Your task to perform on an android device: Search for "apple airpods pro" on target, select the first entry, and add it to the cart. Image 0: 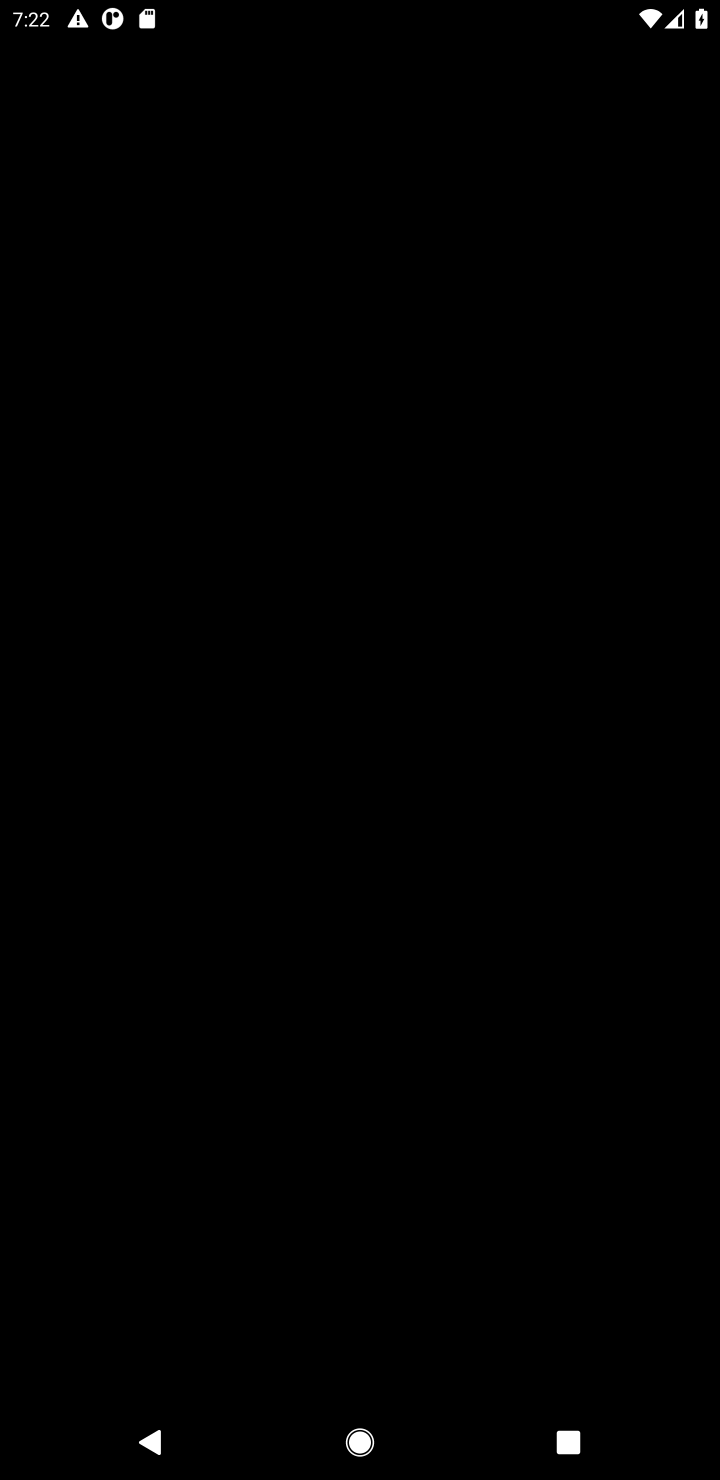
Step 0: press home button
Your task to perform on an android device: Search for "apple airpods pro" on target, select the first entry, and add it to the cart. Image 1: 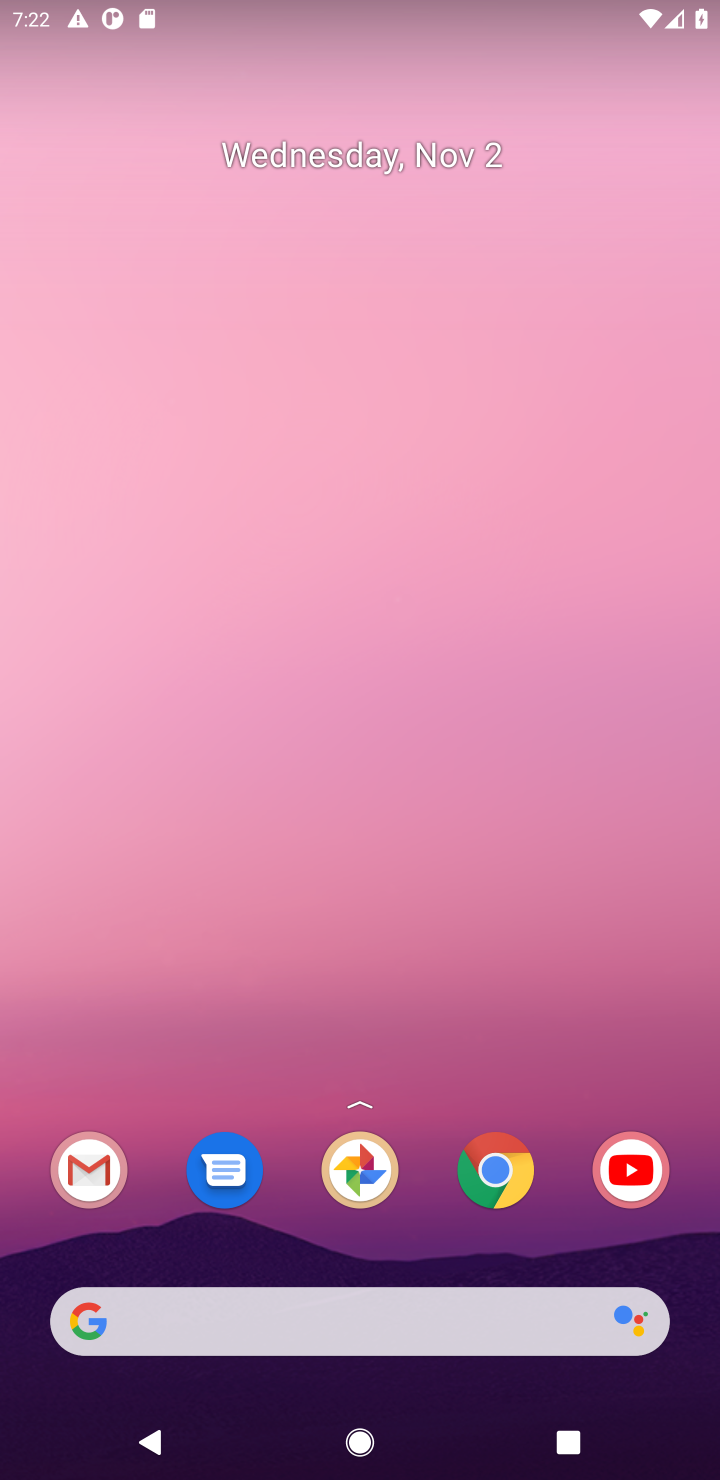
Step 1: click (500, 1185)
Your task to perform on an android device: Search for "apple airpods pro" on target, select the first entry, and add it to the cart. Image 2: 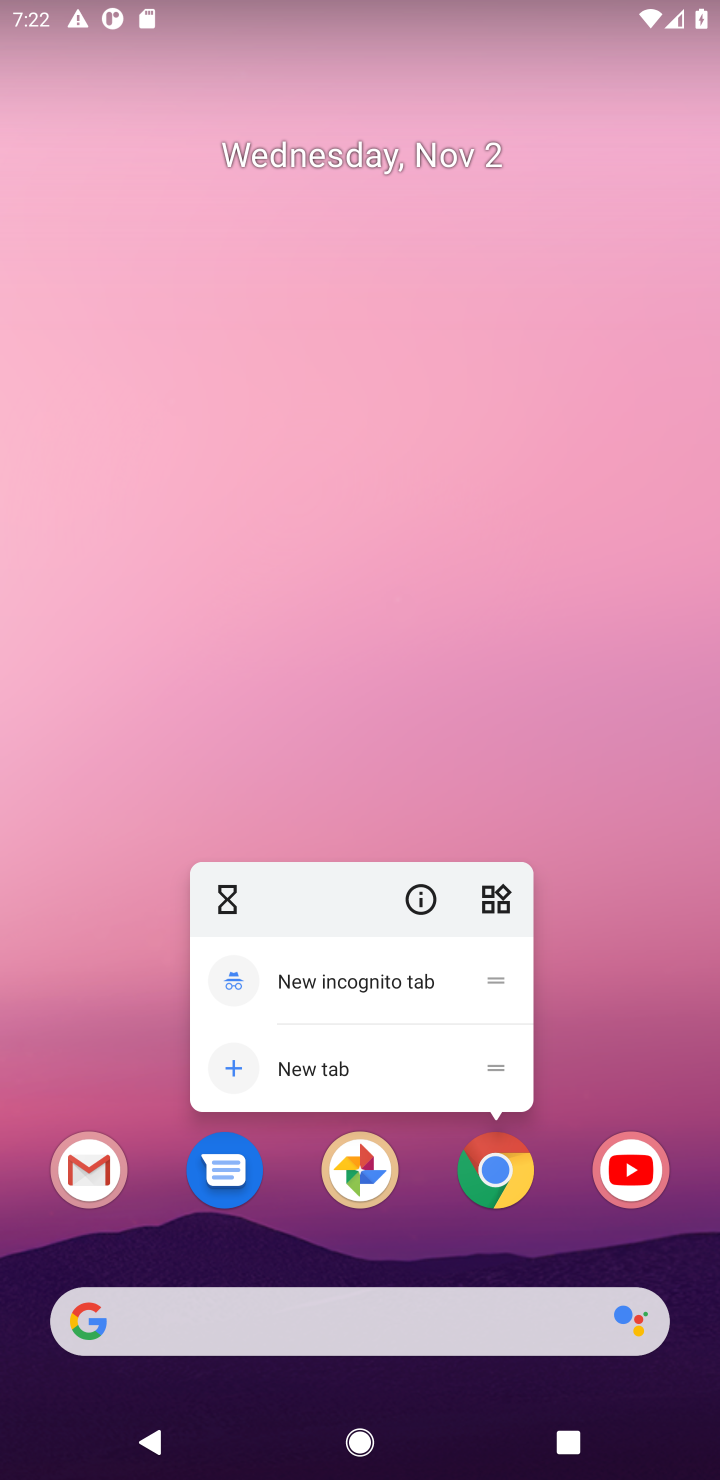
Step 2: click (507, 1198)
Your task to perform on an android device: Search for "apple airpods pro" on target, select the first entry, and add it to the cart. Image 3: 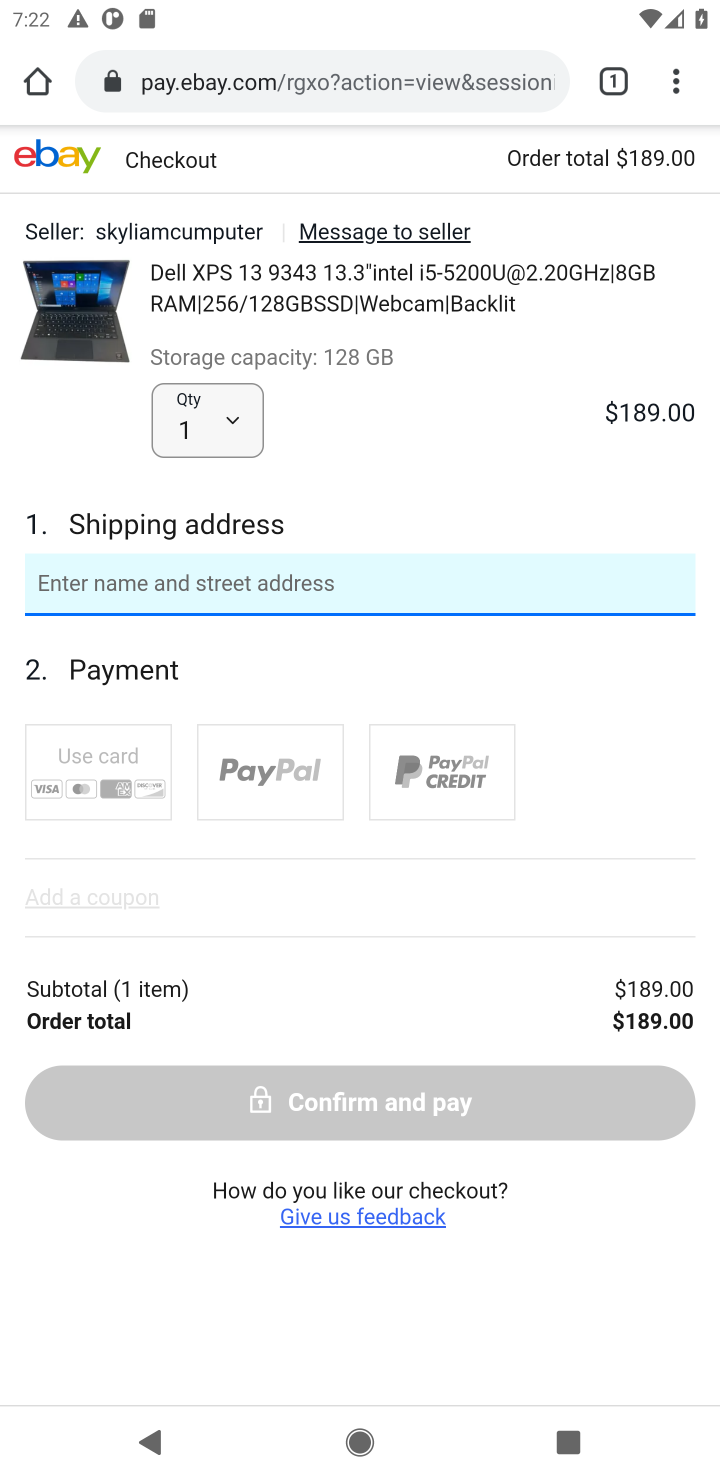
Step 3: click (197, 88)
Your task to perform on an android device: Search for "apple airpods pro" on target, select the first entry, and add it to the cart. Image 4: 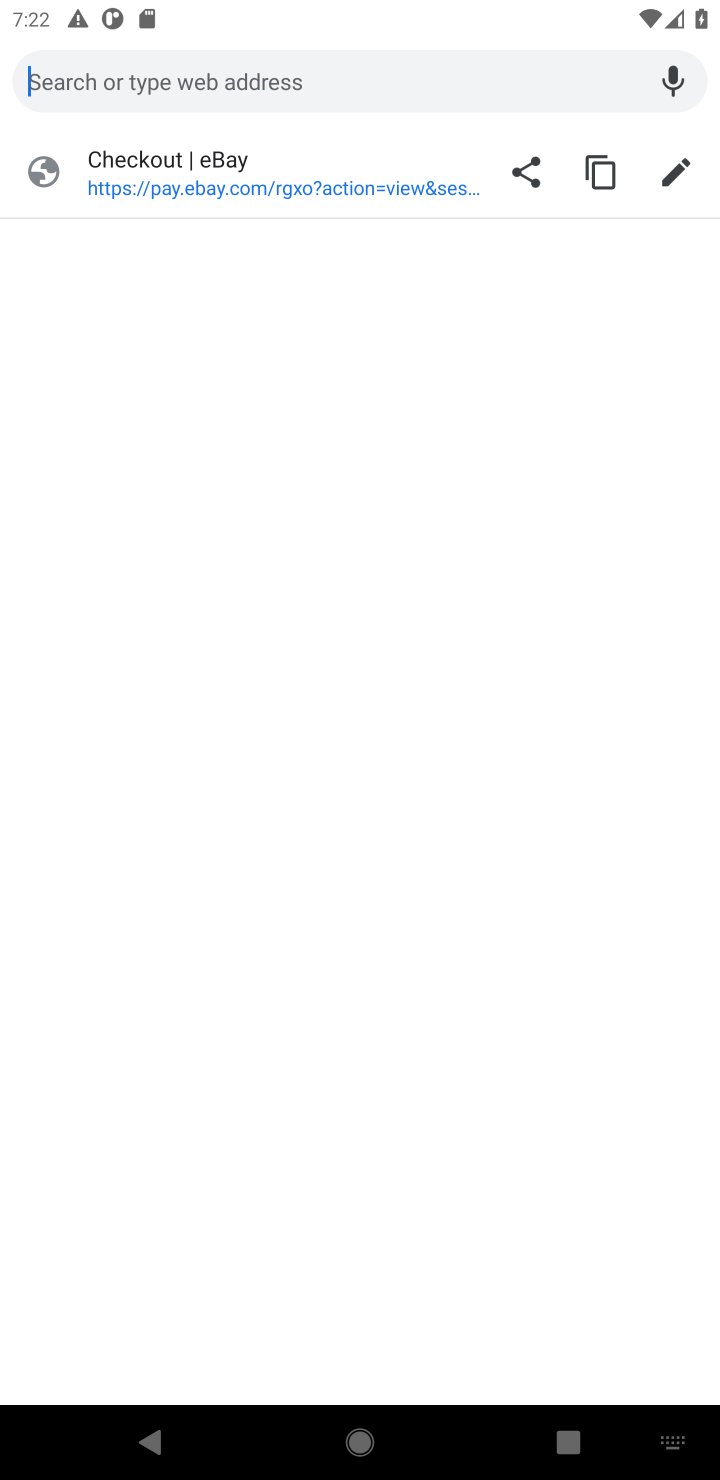
Step 4: type "target"
Your task to perform on an android device: Search for "apple airpods pro" on target, select the first entry, and add it to the cart. Image 5: 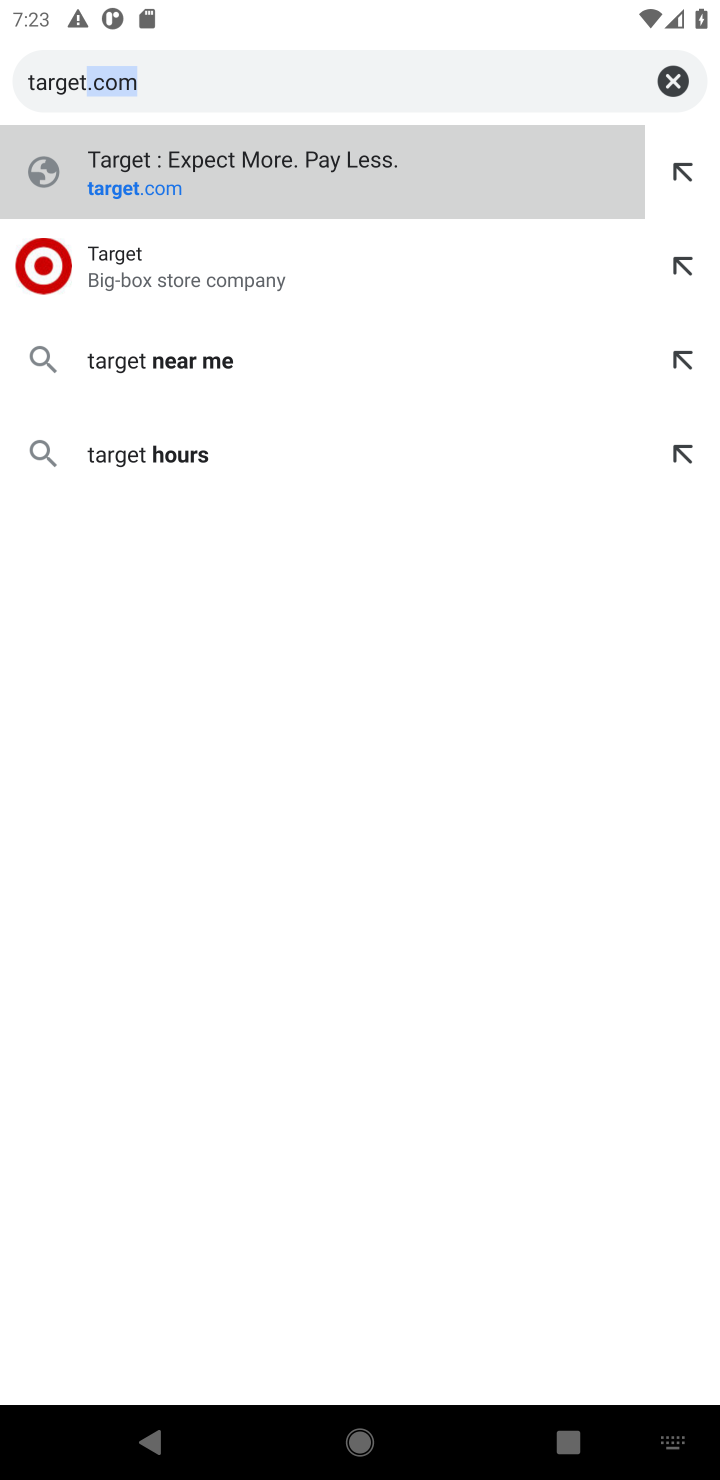
Step 5: type ""
Your task to perform on an android device: Search for "apple airpods pro" on target, select the first entry, and add it to the cart. Image 6: 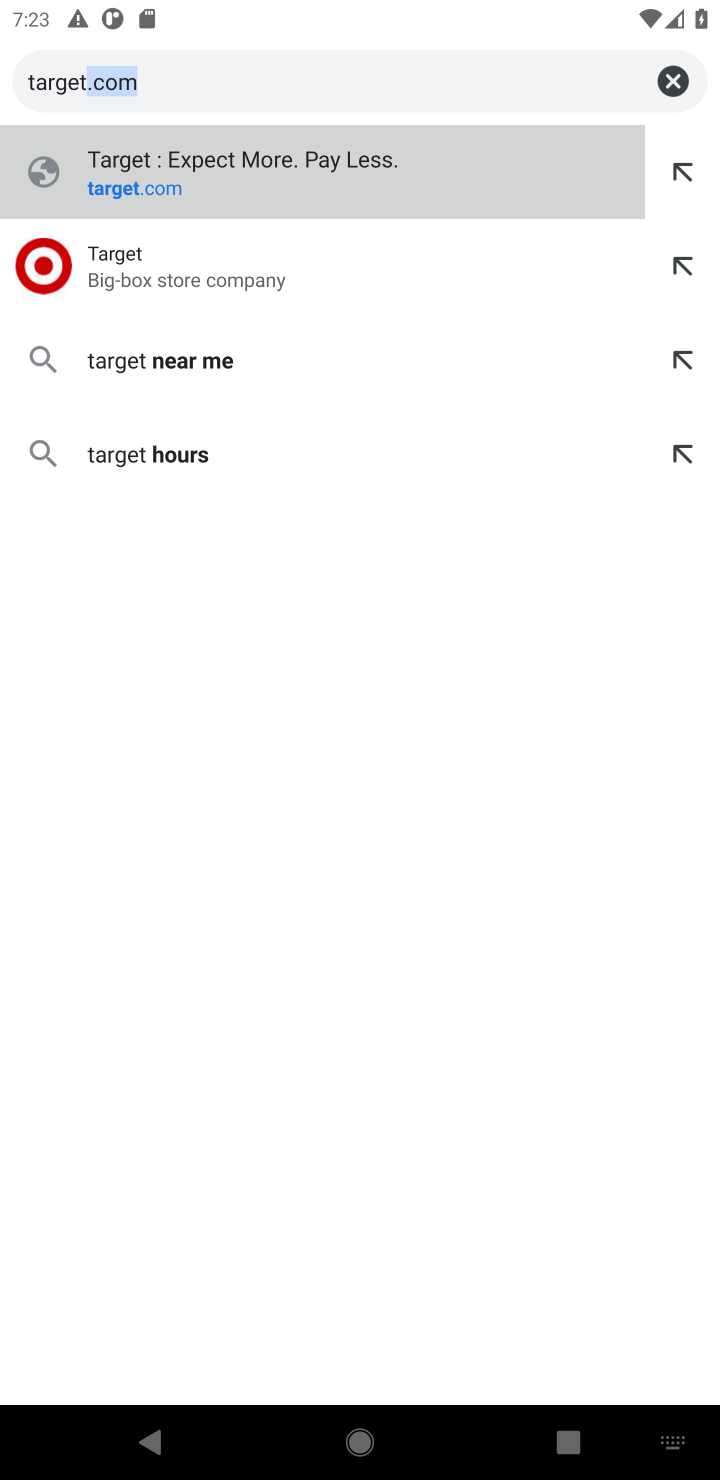
Step 6: press enter
Your task to perform on an android device: Search for "apple airpods pro" on target, select the first entry, and add it to the cart. Image 7: 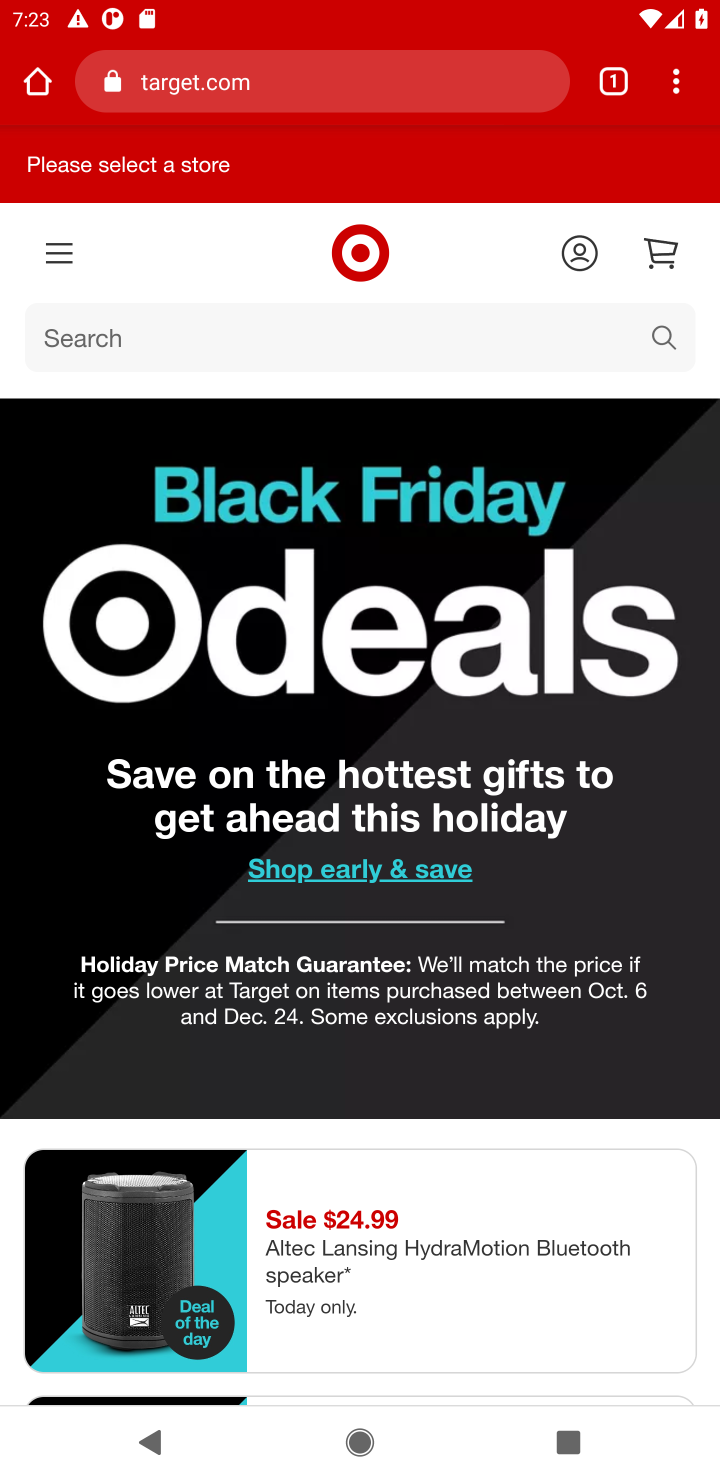
Step 7: click (196, 336)
Your task to perform on an android device: Search for "apple airpods pro" on target, select the first entry, and add it to the cart. Image 8: 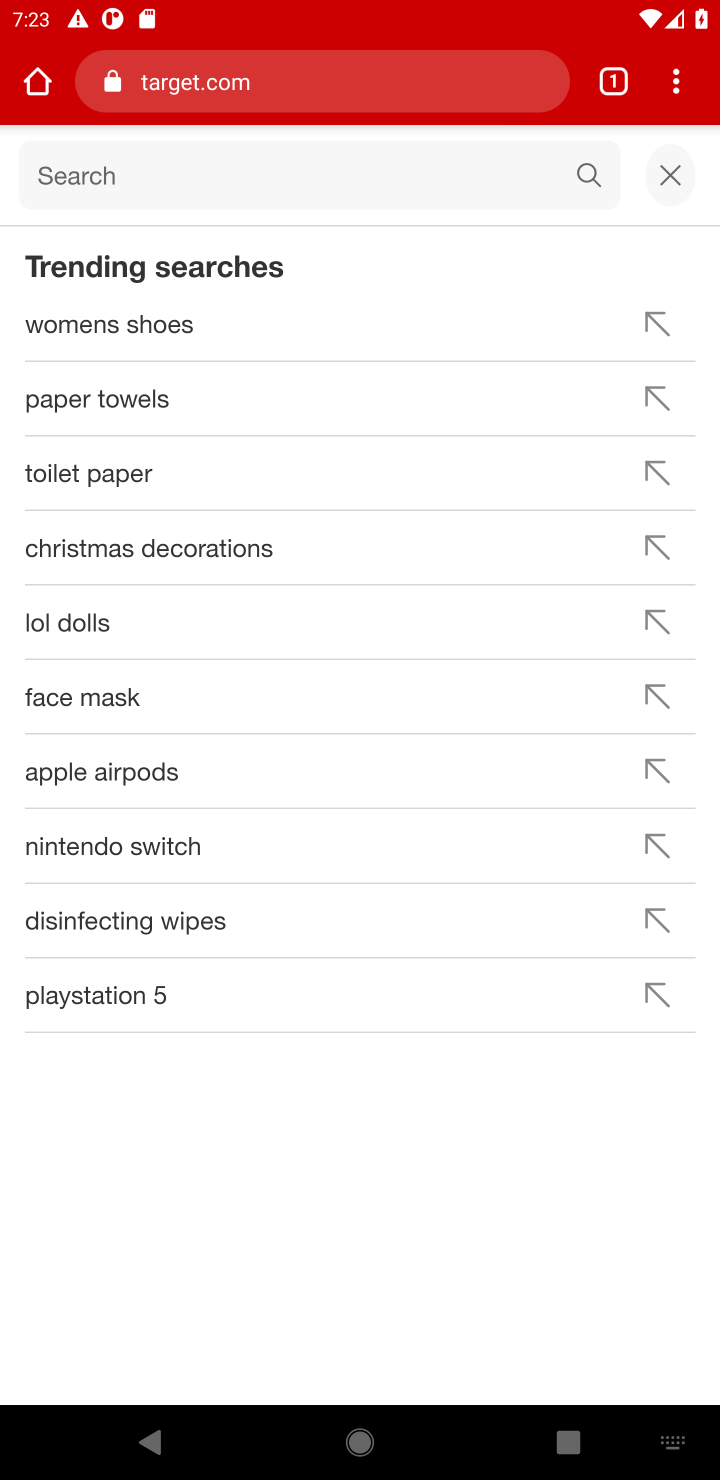
Step 8: type "apple airpods pro"
Your task to perform on an android device: Search for "apple airpods pro" on target, select the first entry, and add it to the cart. Image 9: 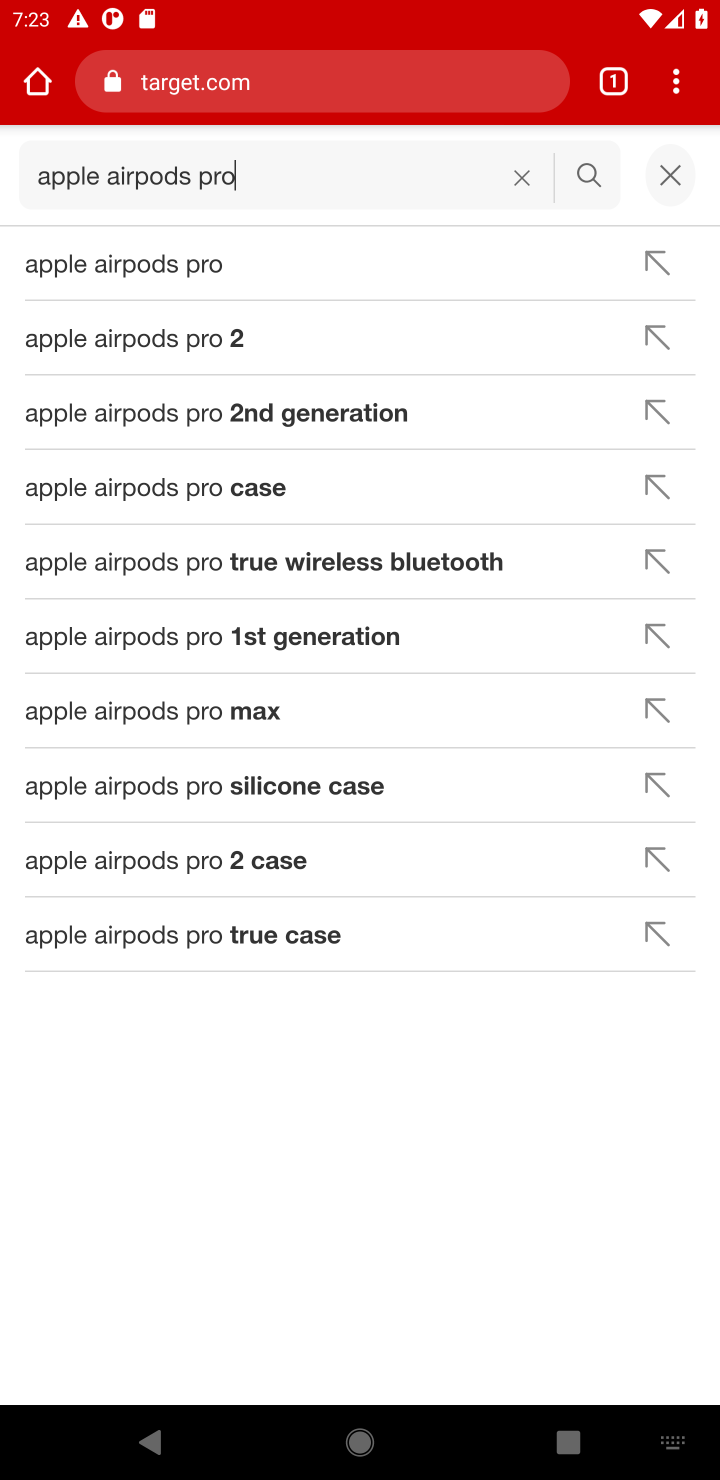
Step 9: press enter
Your task to perform on an android device: Search for "apple airpods pro" on target, select the first entry, and add it to the cart. Image 10: 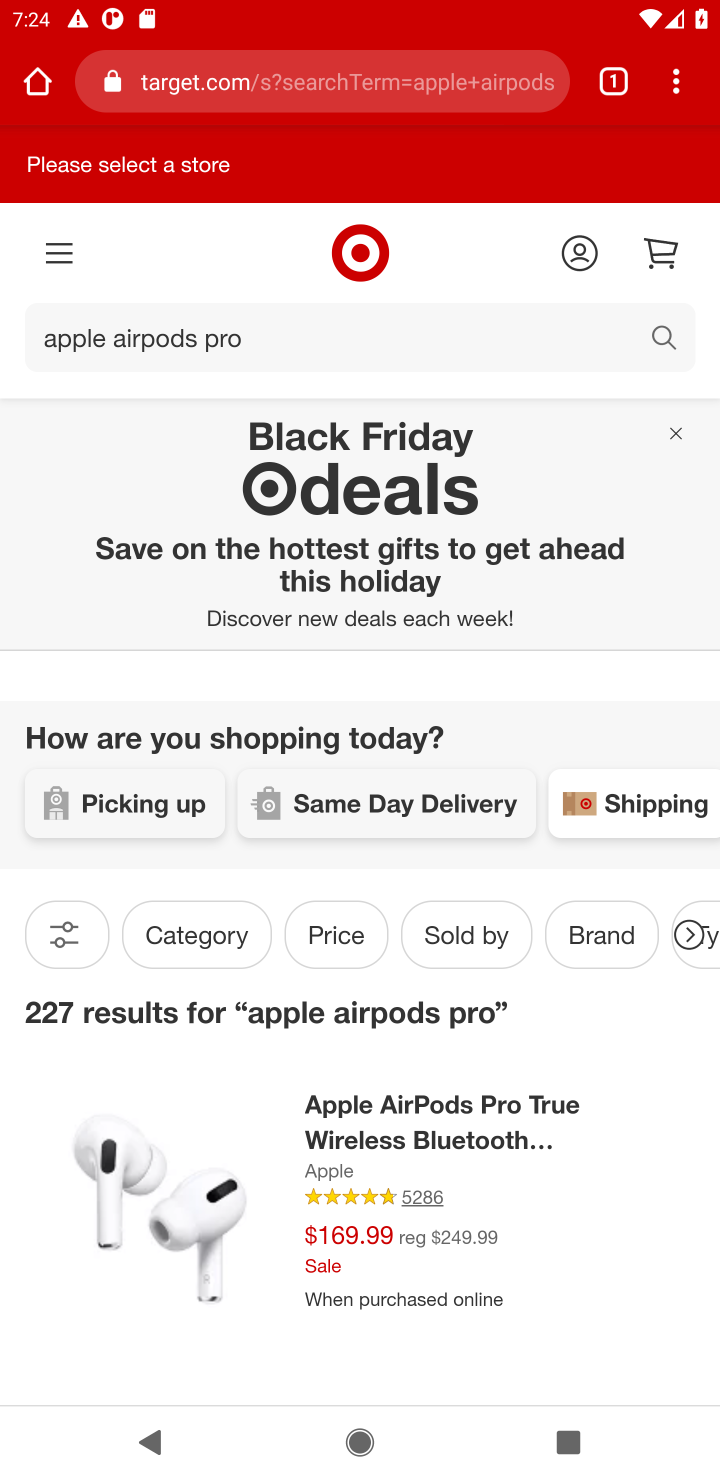
Step 10: press back button
Your task to perform on an android device: Search for "apple airpods pro" on target, select the first entry, and add it to the cart. Image 11: 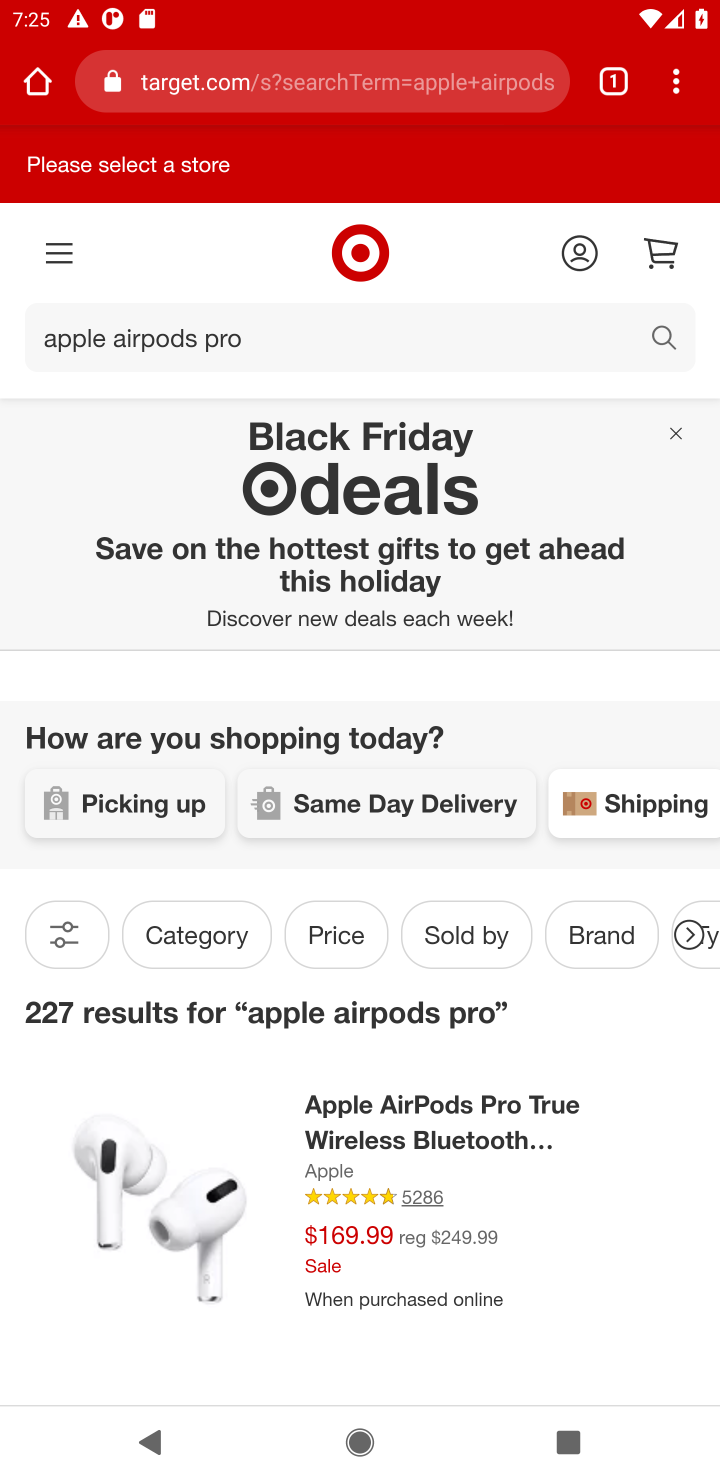
Step 11: click (438, 709)
Your task to perform on an android device: Search for "apple airpods pro" on target, select the first entry, and add it to the cart. Image 12: 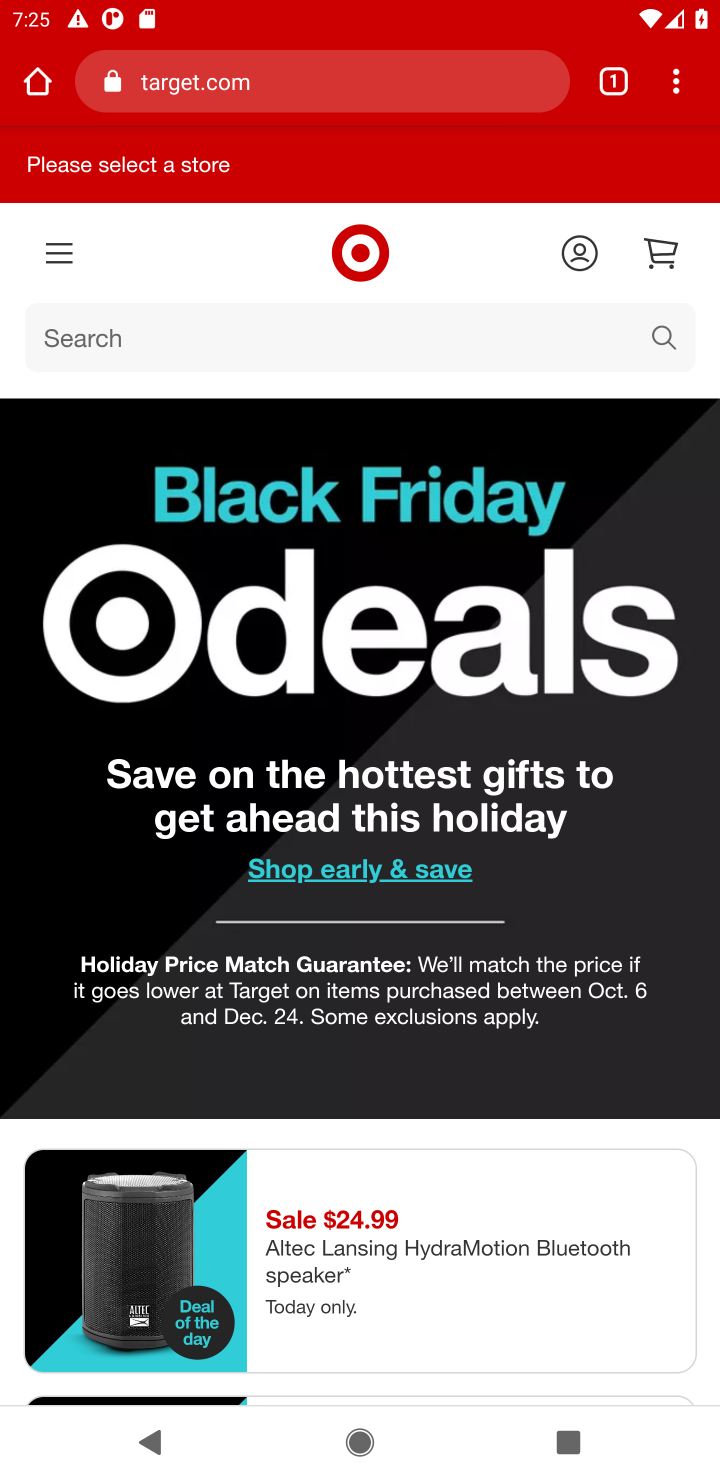
Step 12: drag from (576, 965) to (462, 199)
Your task to perform on an android device: Search for "apple airpods pro" on target, select the first entry, and add it to the cart. Image 13: 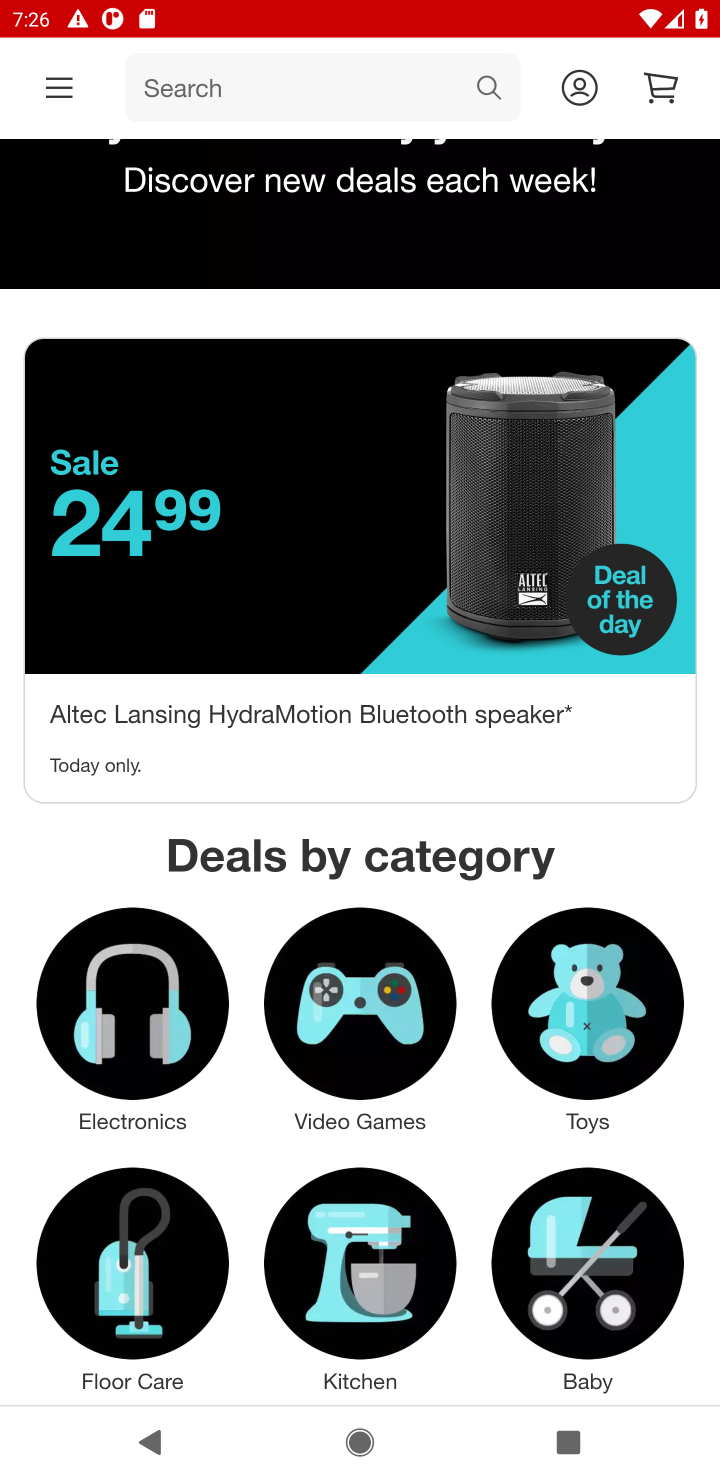
Step 13: drag from (328, 470) to (395, 977)
Your task to perform on an android device: Search for "apple airpods pro" on target, select the first entry, and add it to the cart. Image 14: 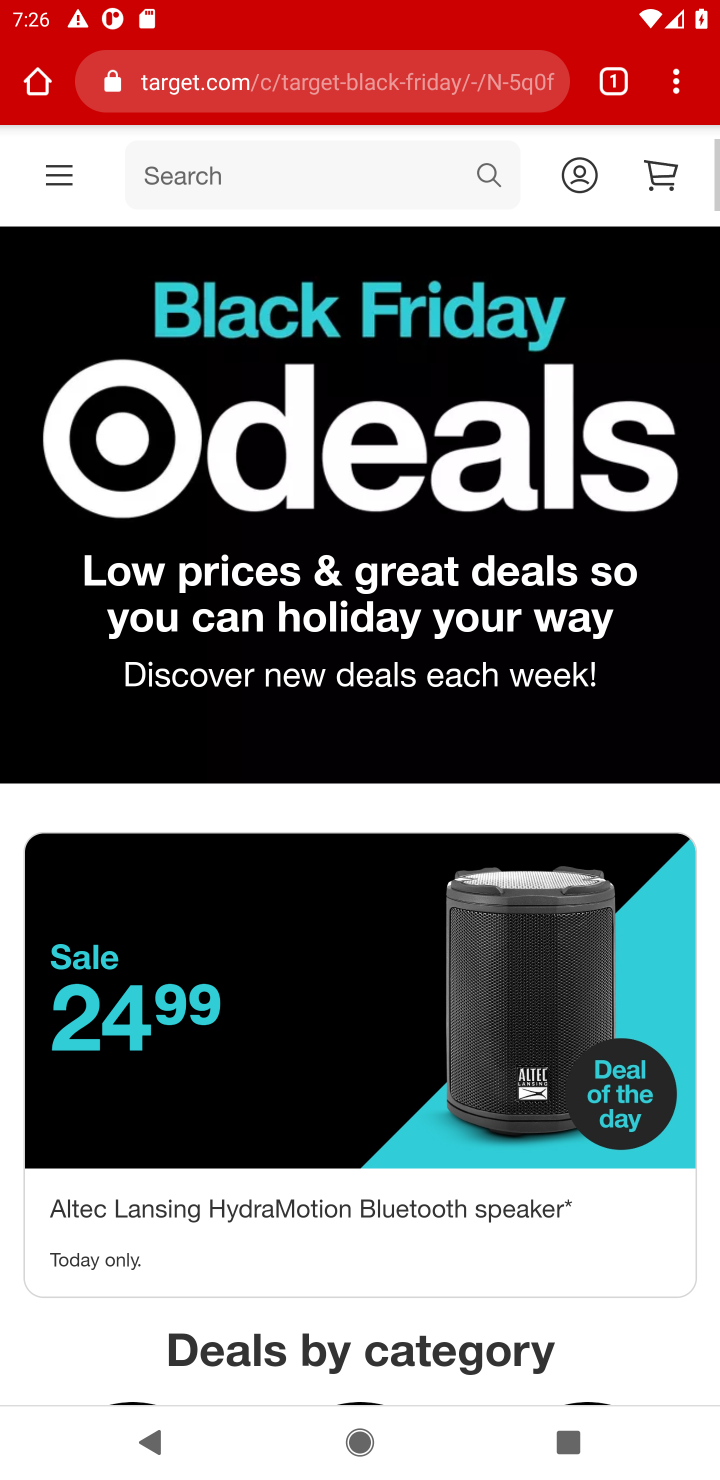
Step 14: click (319, 171)
Your task to perform on an android device: Search for "apple airpods pro" on target, select the first entry, and add it to the cart. Image 15: 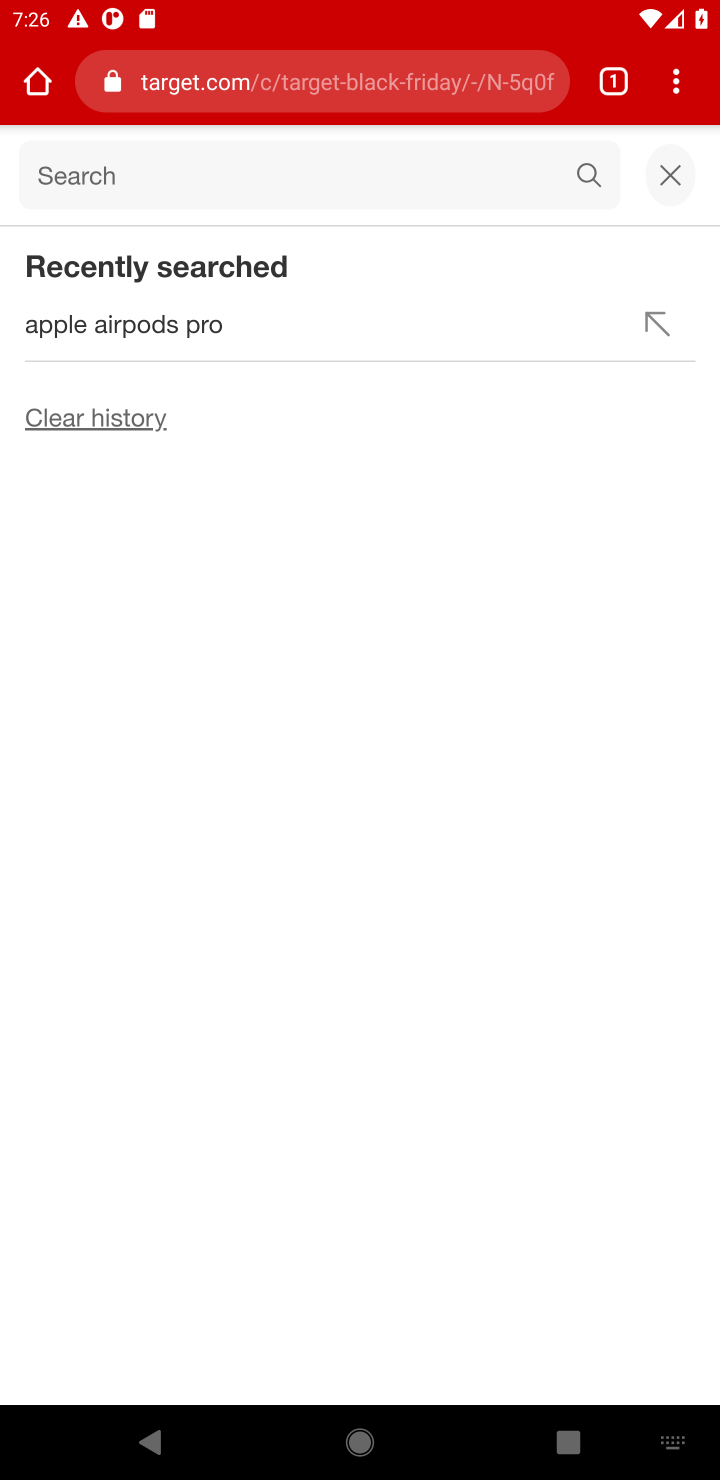
Step 15: type "apple airpods pro"
Your task to perform on an android device: Search for "apple airpods pro" on target, select the first entry, and add it to the cart. Image 16: 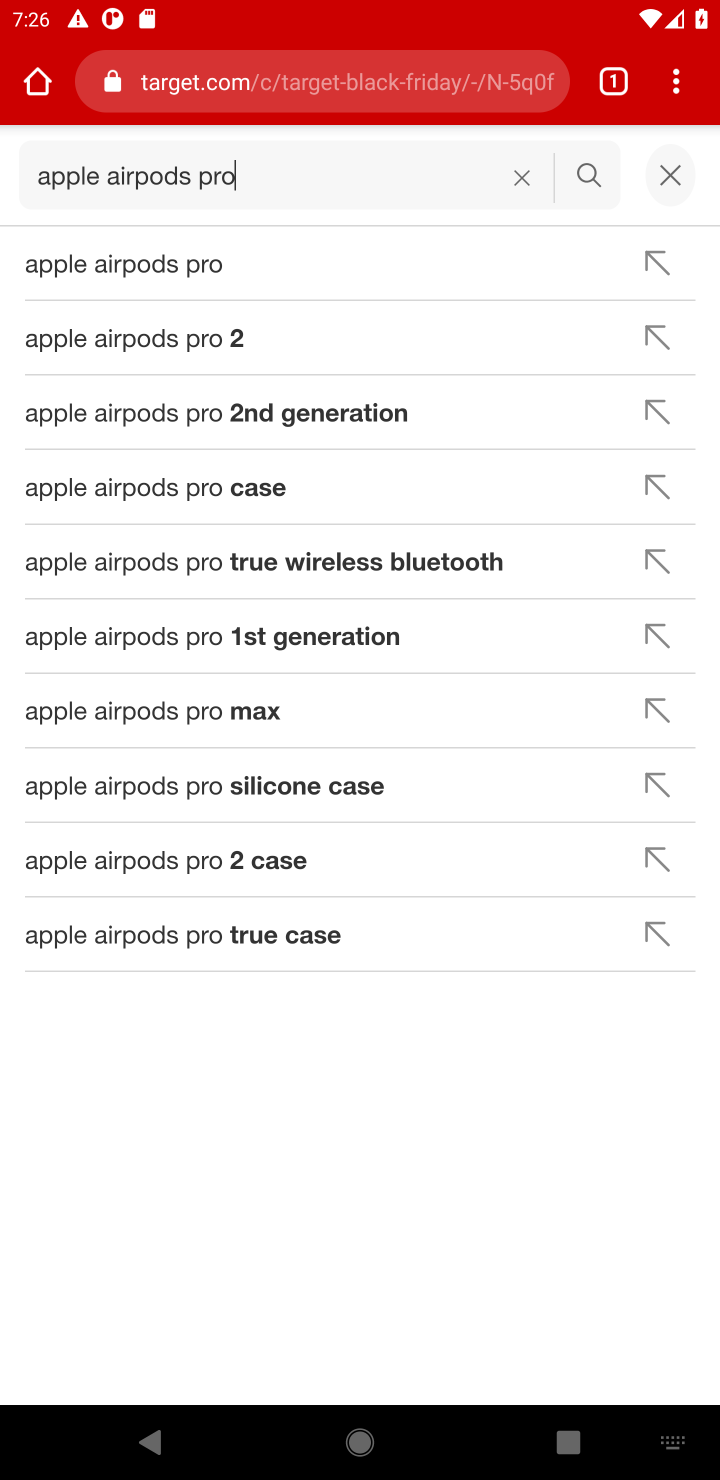
Step 16: type ""
Your task to perform on an android device: Search for "apple airpods pro" on target, select the first entry, and add it to the cart. Image 17: 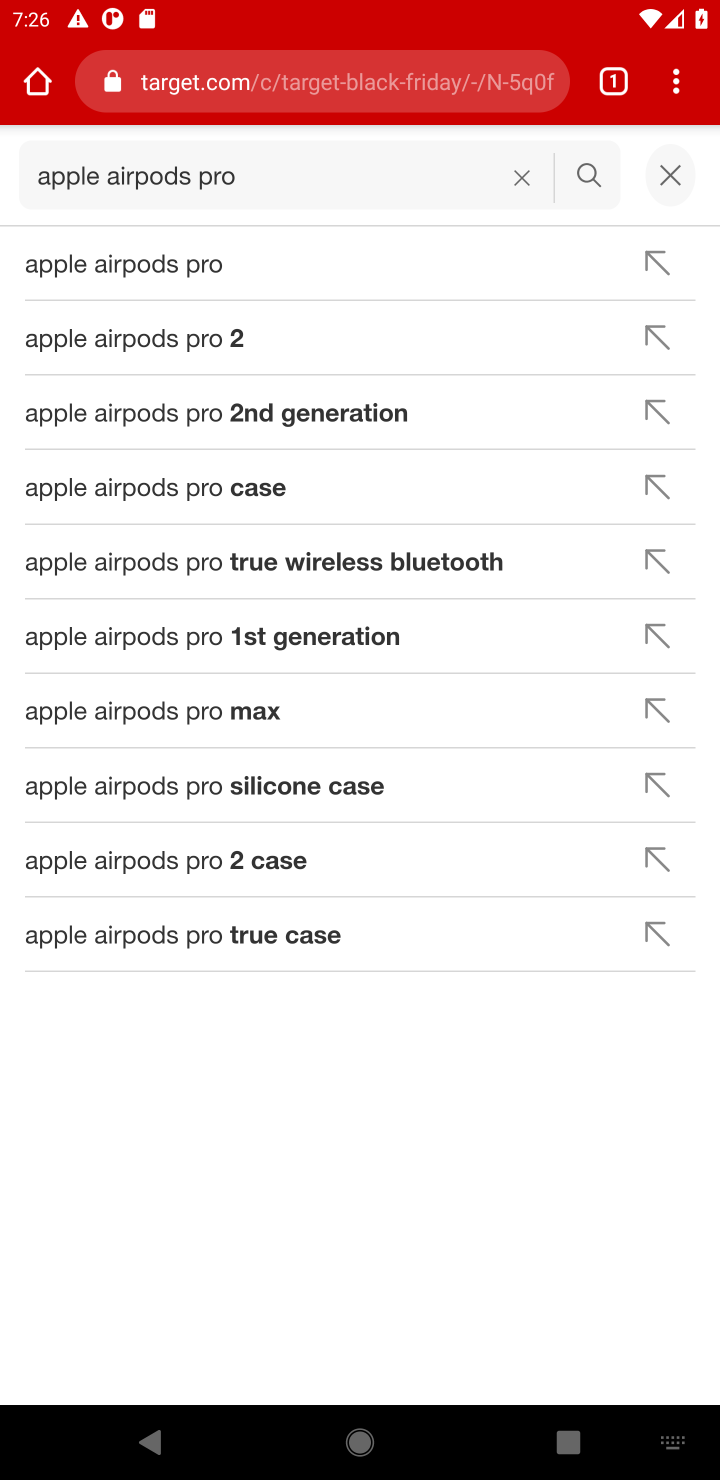
Step 17: press enter
Your task to perform on an android device: Search for "apple airpods pro" on target, select the first entry, and add it to the cart. Image 18: 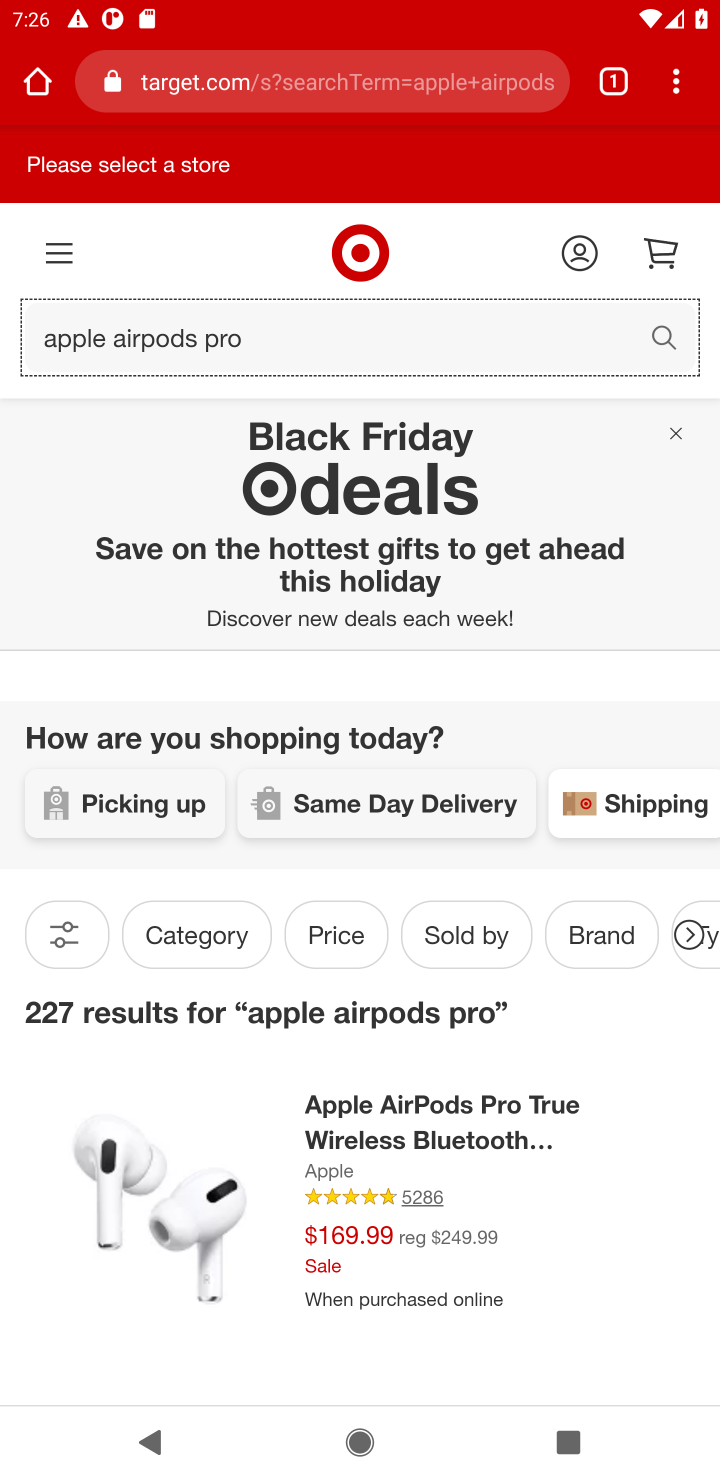
Step 18: click (441, 1146)
Your task to perform on an android device: Search for "apple airpods pro" on target, select the first entry, and add it to the cart. Image 19: 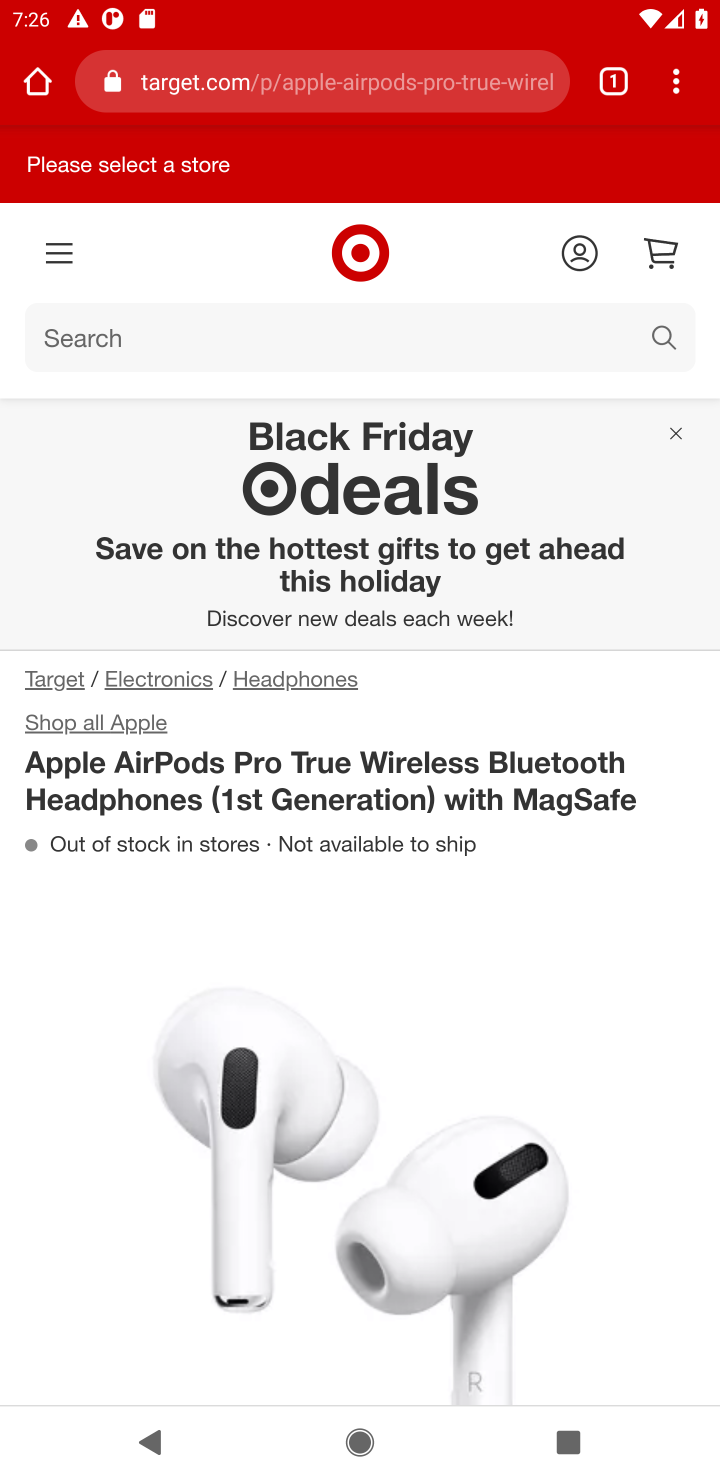
Step 19: drag from (503, 1046) to (419, 342)
Your task to perform on an android device: Search for "apple airpods pro" on target, select the first entry, and add it to the cart. Image 20: 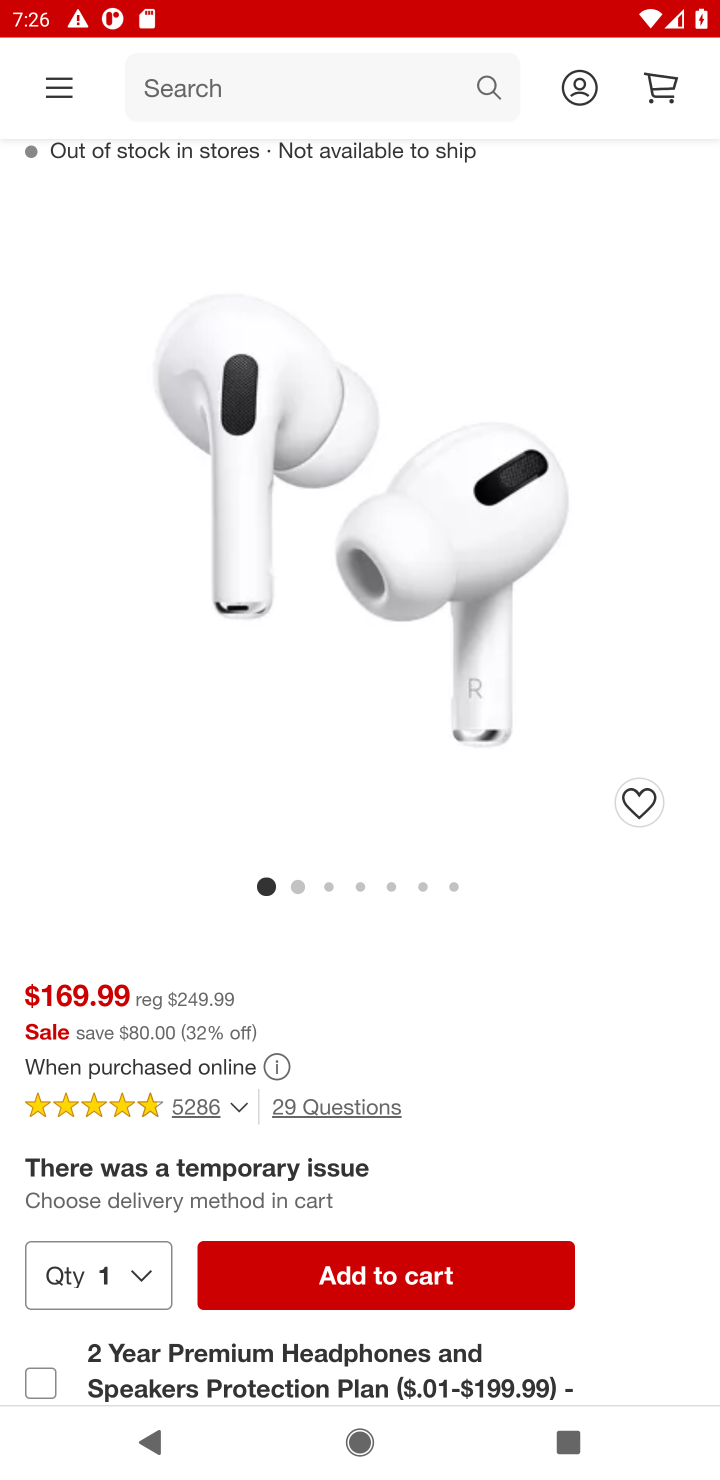
Step 20: click (357, 1291)
Your task to perform on an android device: Search for "apple airpods pro" on target, select the first entry, and add it to the cart. Image 21: 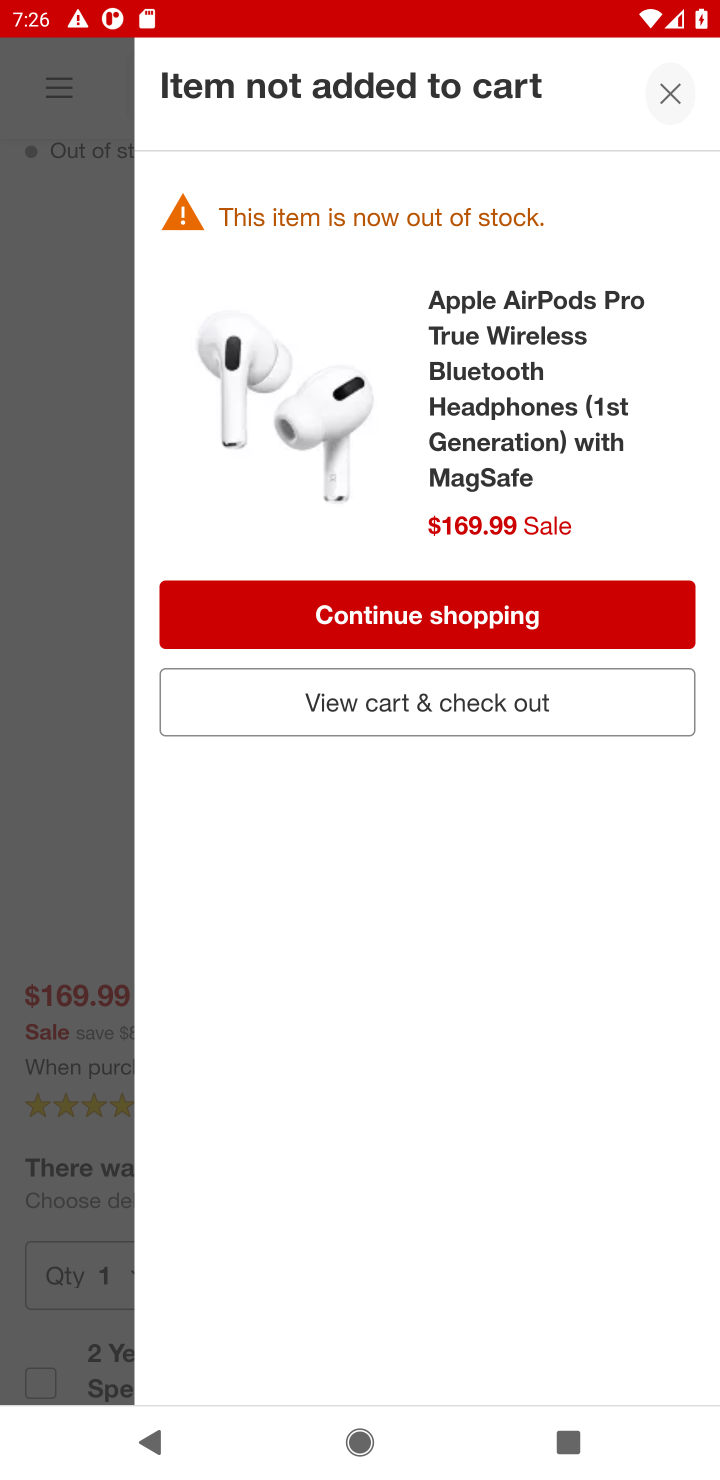
Step 21: click (402, 706)
Your task to perform on an android device: Search for "apple airpods pro" on target, select the first entry, and add it to the cart. Image 22: 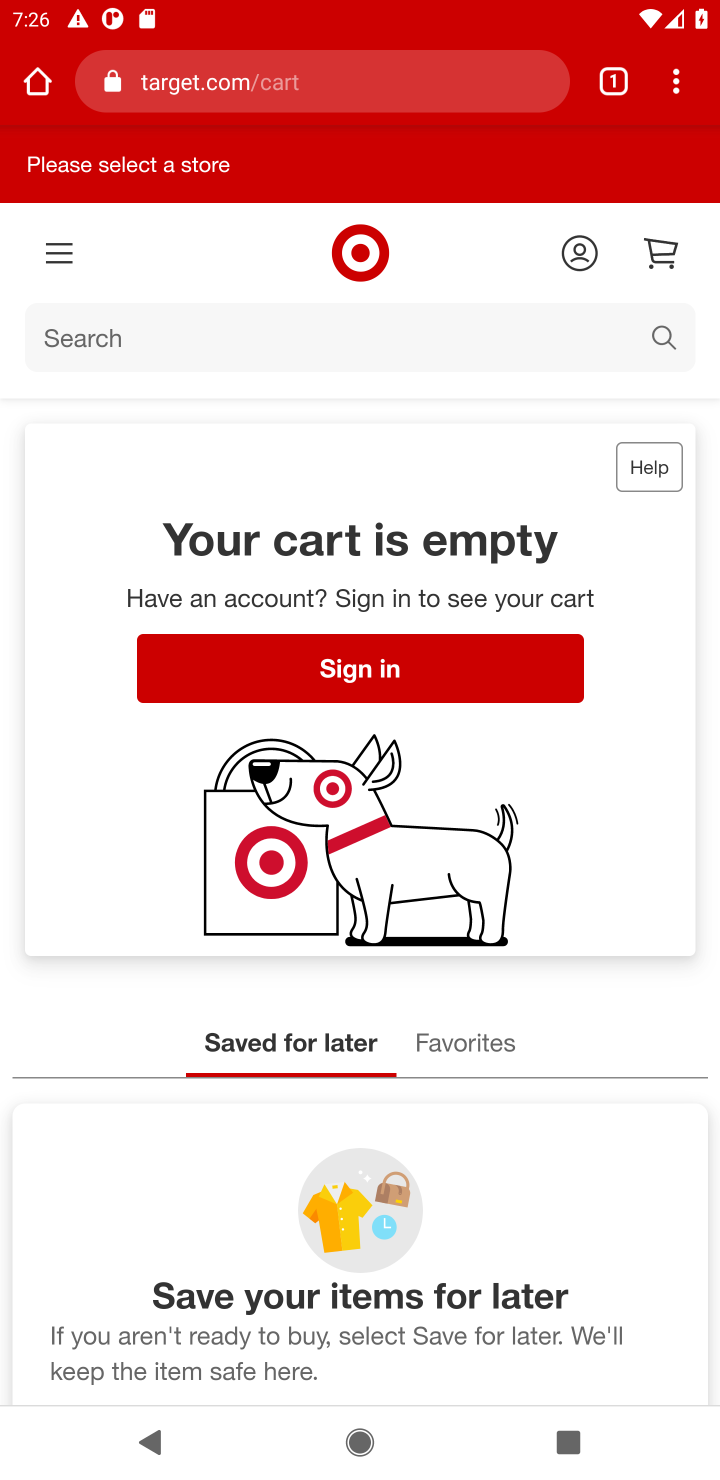
Step 22: press back button
Your task to perform on an android device: Search for "apple airpods pro" on target, select the first entry, and add it to the cart. Image 23: 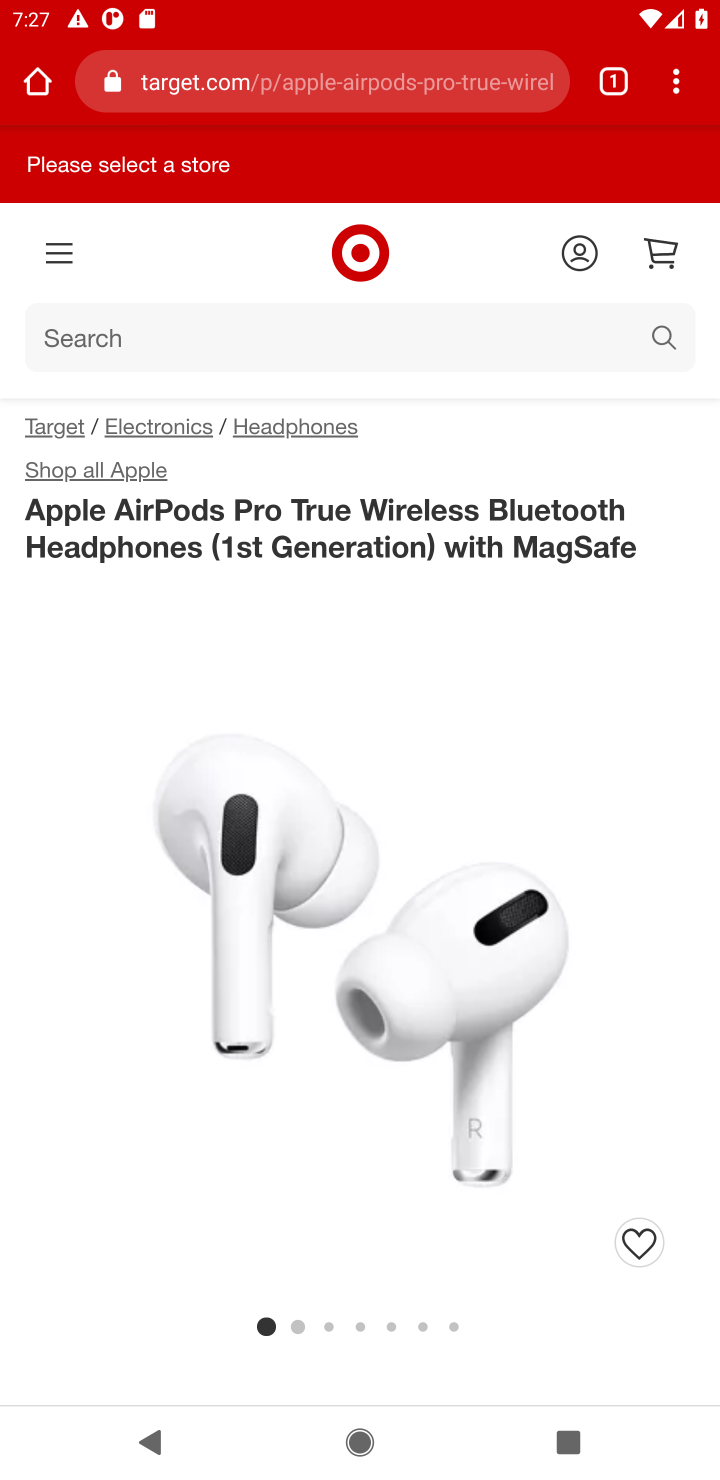
Step 23: drag from (513, 865) to (369, 347)
Your task to perform on an android device: Search for "apple airpods pro" on target, select the first entry, and add it to the cart. Image 24: 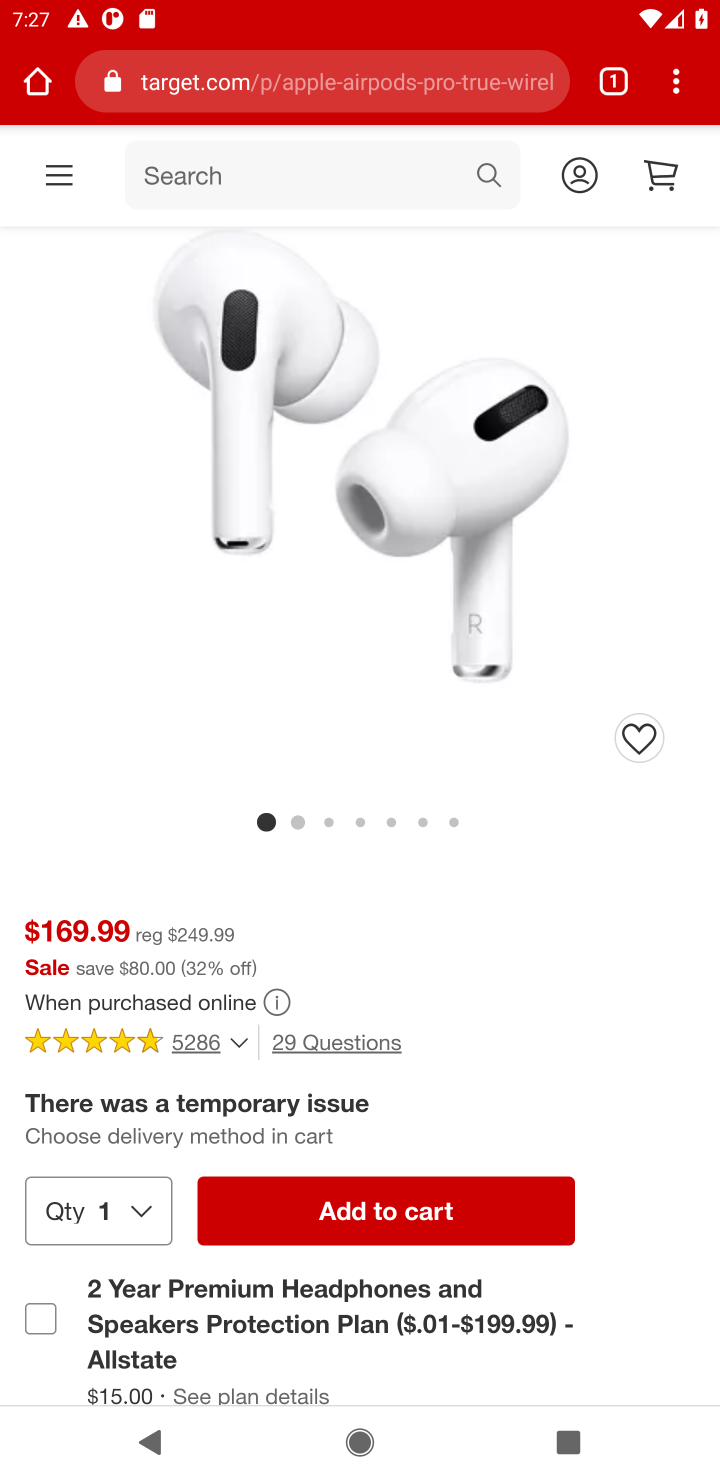
Step 24: click (537, 1229)
Your task to perform on an android device: Search for "apple airpods pro" on target, select the first entry, and add it to the cart. Image 25: 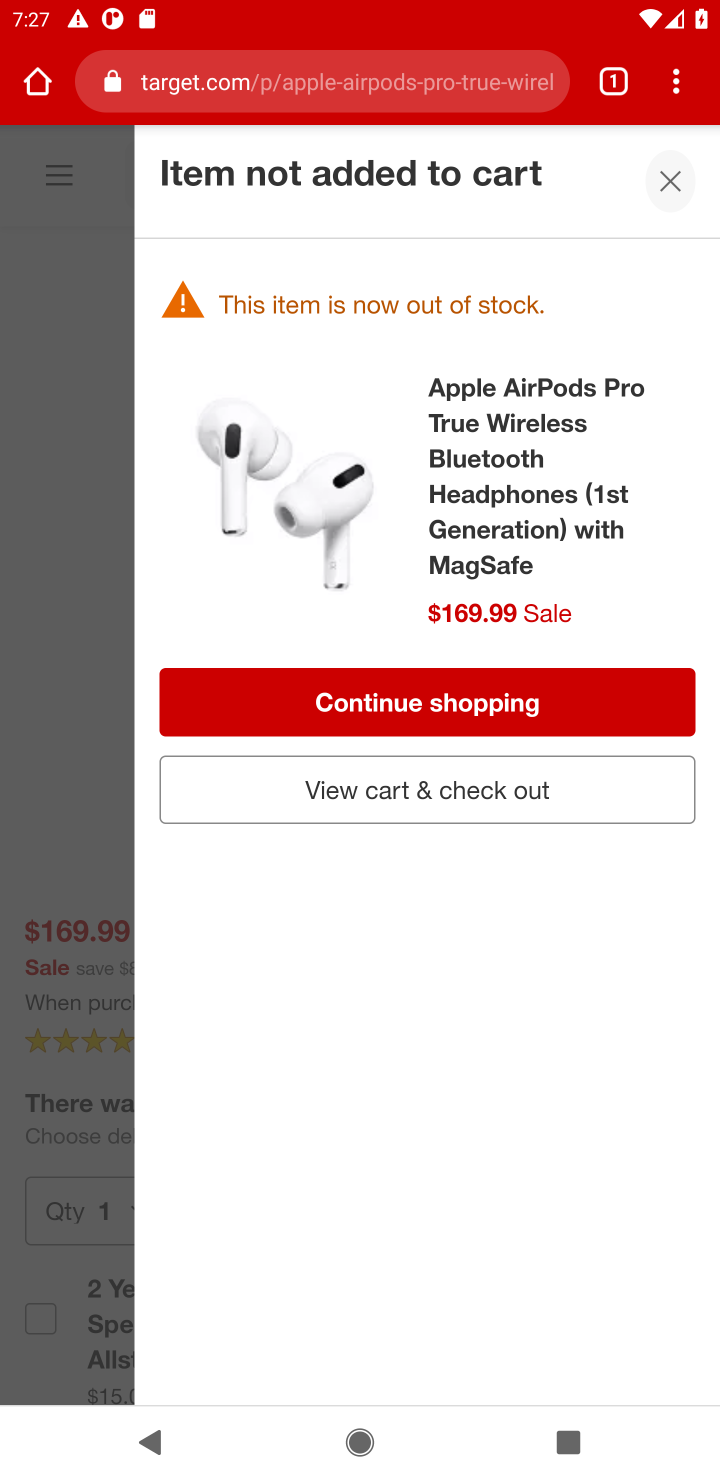
Step 25: click (445, 801)
Your task to perform on an android device: Search for "apple airpods pro" on target, select the first entry, and add it to the cart. Image 26: 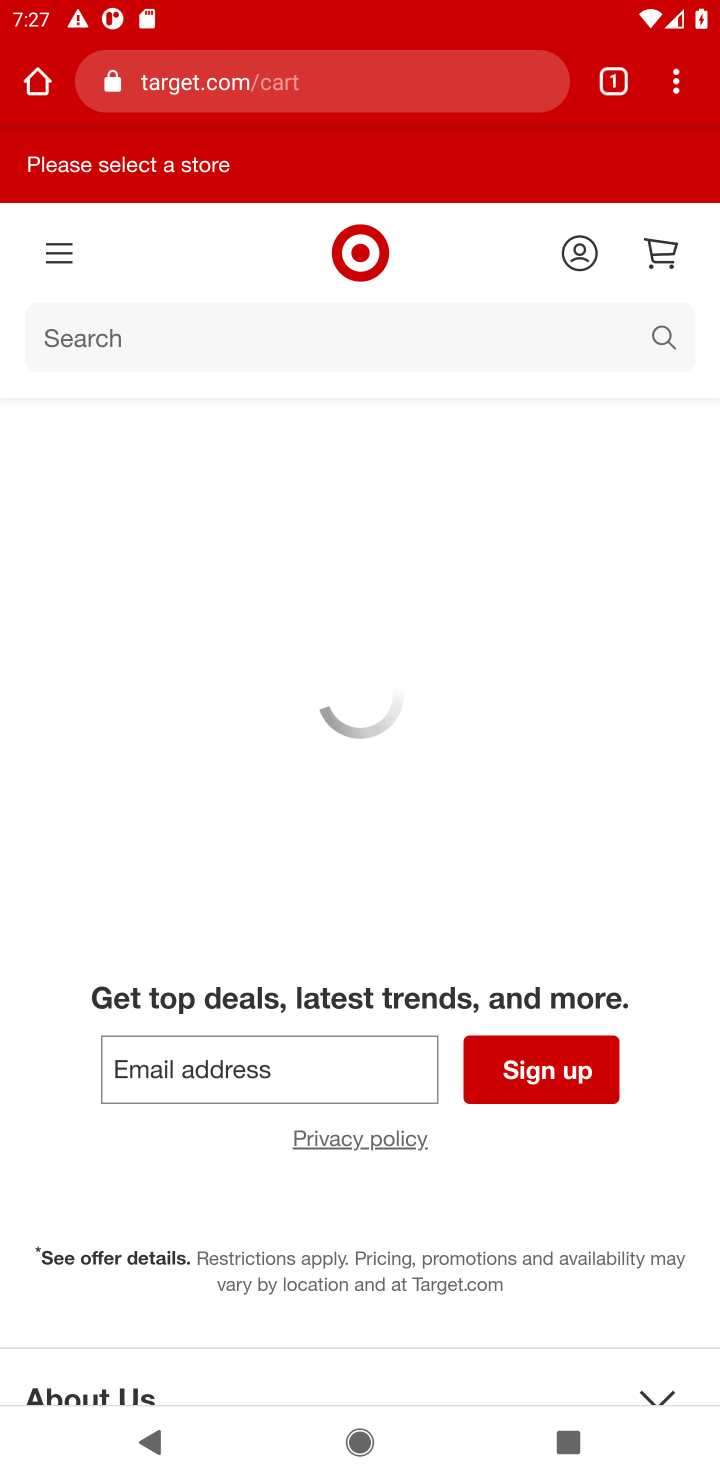
Step 26: task complete